Your task to perform on an android device: change your default location settings in chrome Image 0: 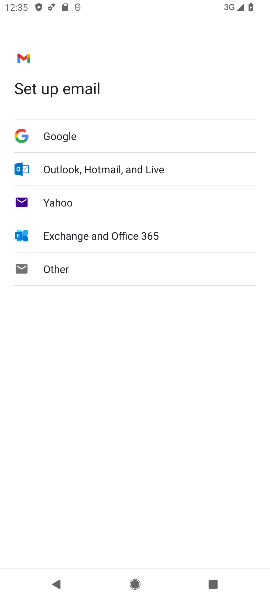
Step 0: press home button
Your task to perform on an android device: change your default location settings in chrome Image 1: 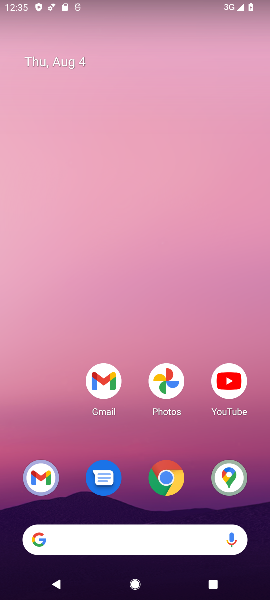
Step 1: drag from (117, 504) to (182, 56)
Your task to perform on an android device: change your default location settings in chrome Image 2: 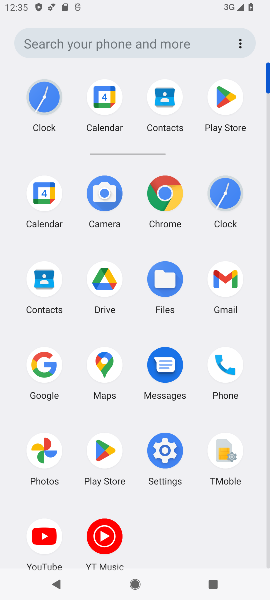
Step 2: click (154, 217)
Your task to perform on an android device: change your default location settings in chrome Image 3: 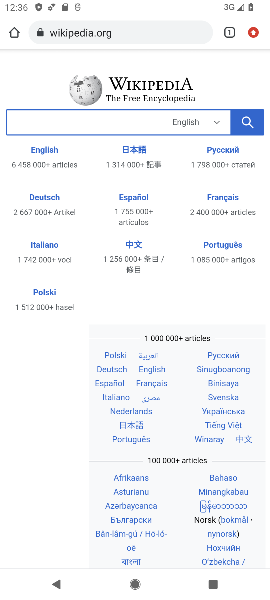
Step 3: press home button
Your task to perform on an android device: change your default location settings in chrome Image 4: 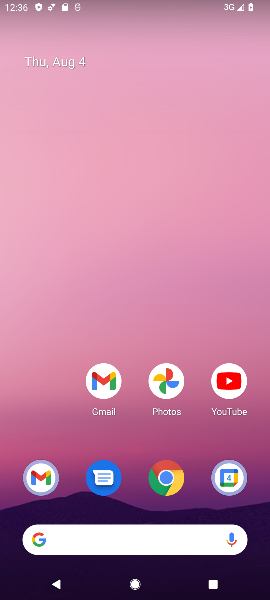
Step 4: click (152, 474)
Your task to perform on an android device: change your default location settings in chrome Image 5: 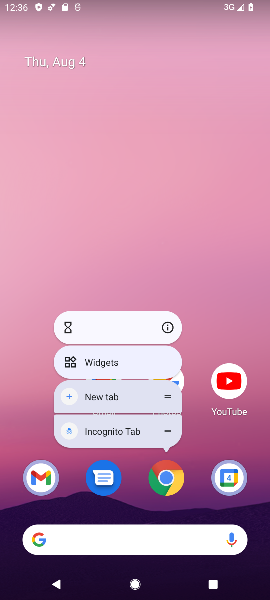
Step 5: click (172, 330)
Your task to perform on an android device: change your default location settings in chrome Image 6: 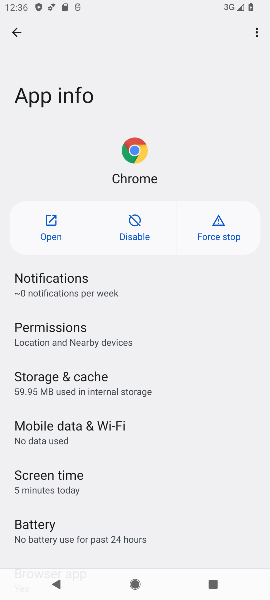
Step 6: click (57, 330)
Your task to perform on an android device: change your default location settings in chrome Image 7: 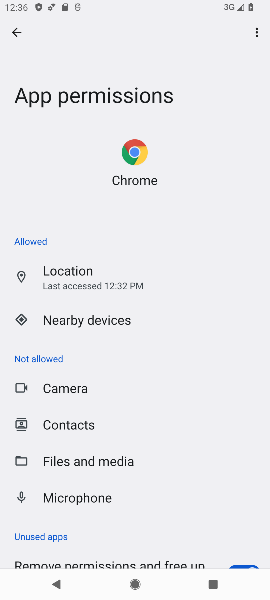
Step 7: click (47, 282)
Your task to perform on an android device: change your default location settings in chrome Image 8: 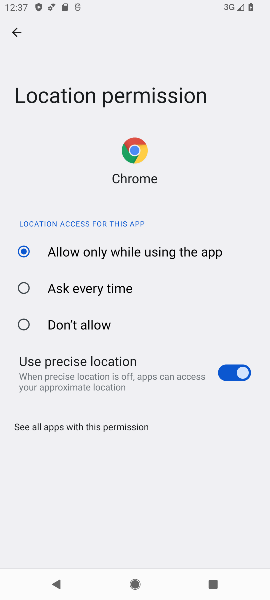
Step 8: click (152, 382)
Your task to perform on an android device: change your default location settings in chrome Image 9: 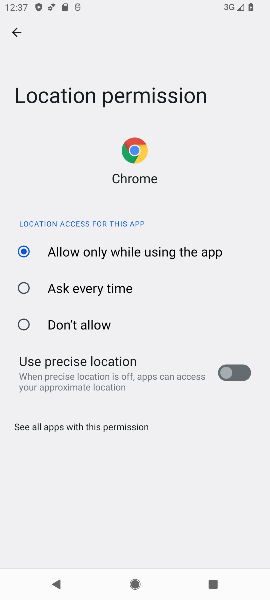
Step 9: task complete